Your task to perform on an android device: Open location settings Image 0: 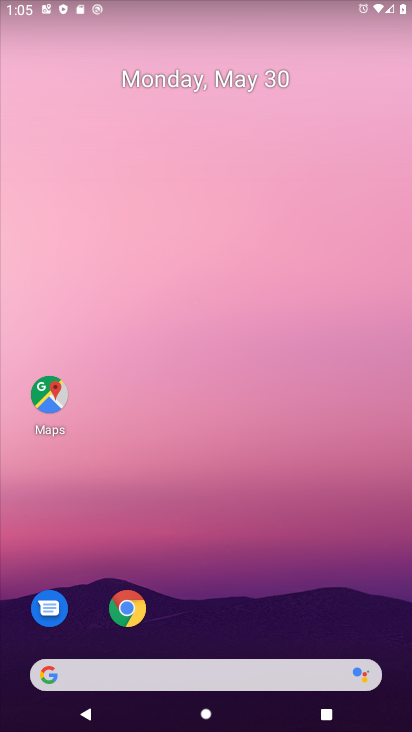
Step 0: drag from (340, 591) to (369, 321)
Your task to perform on an android device: Open location settings Image 1: 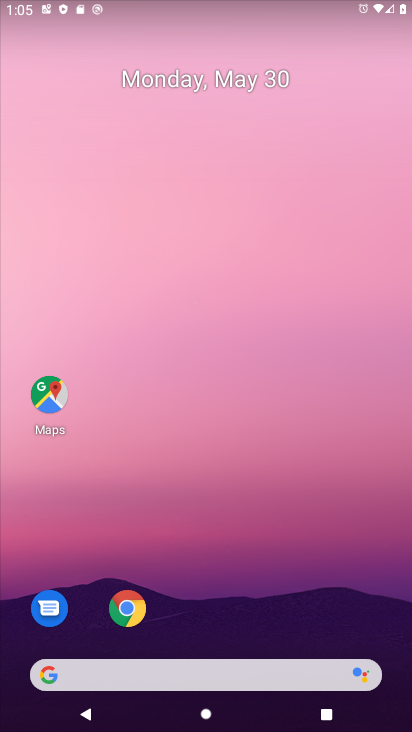
Step 1: drag from (259, 625) to (285, 168)
Your task to perform on an android device: Open location settings Image 2: 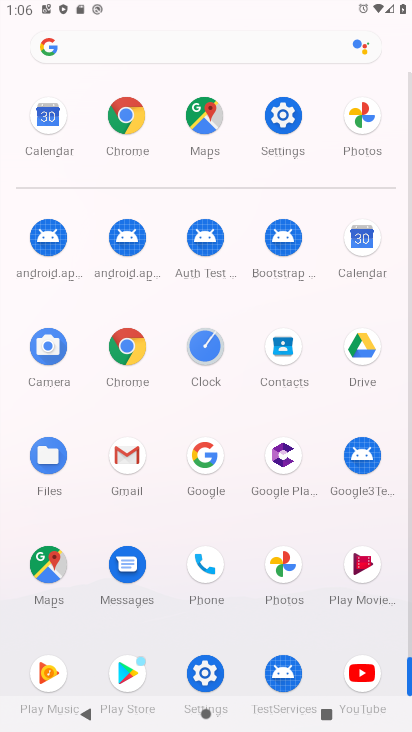
Step 2: click (287, 125)
Your task to perform on an android device: Open location settings Image 3: 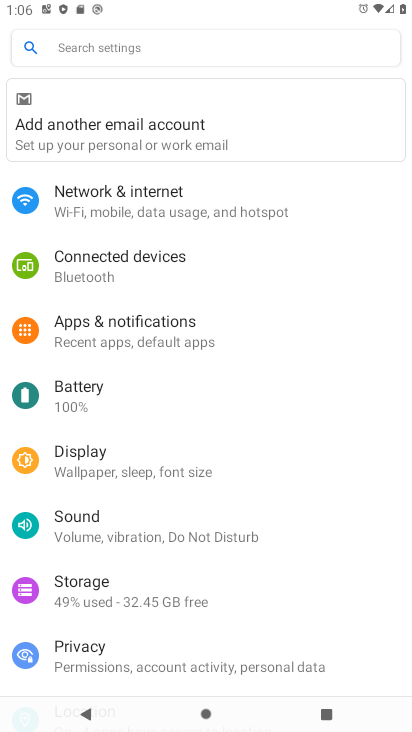
Step 3: drag from (276, 618) to (332, 317)
Your task to perform on an android device: Open location settings Image 4: 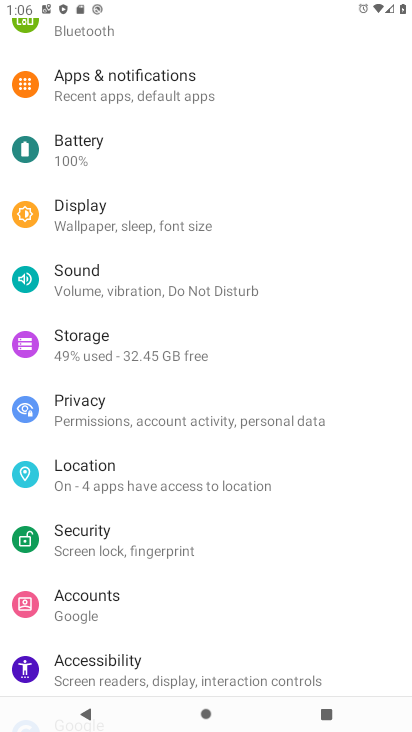
Step 4: click (156, 488)
Your task to perform on an android device: Open location settings Image 5: 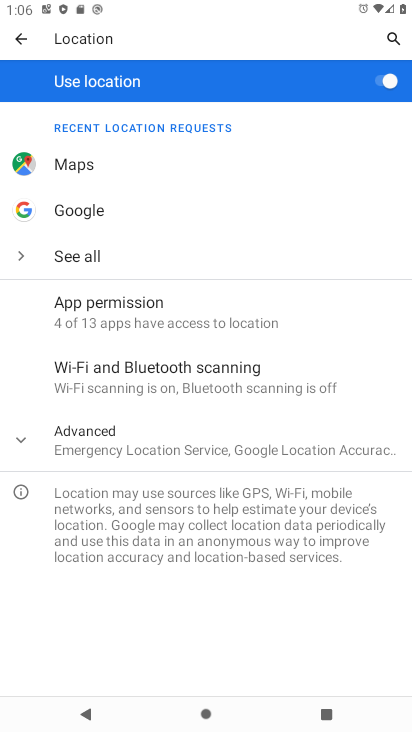
Step 5: task complete